Your task to perform on an android device: Is it going to rain today? Image 0: 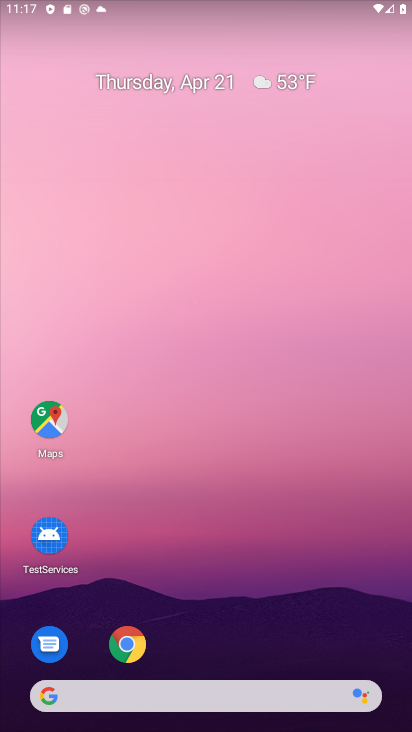
Step 0: drag from (256, 599) to (222, 151)
Your task to perform on an android device: Is it going to rain today? Image 1: 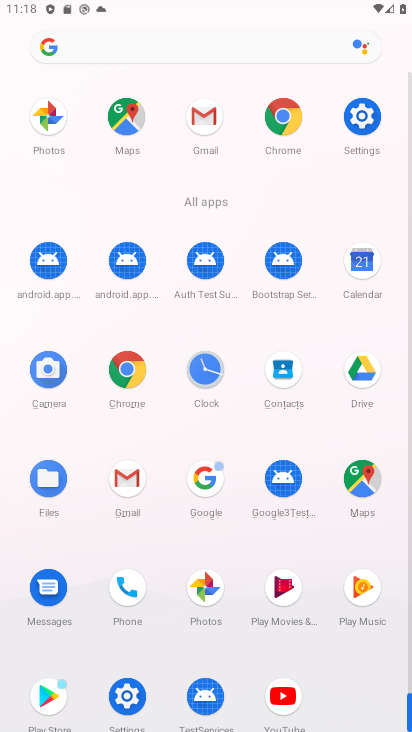
Step 1: click (132, 364)
Your task to perform on an android device: Is it going to rain today? Image 2: 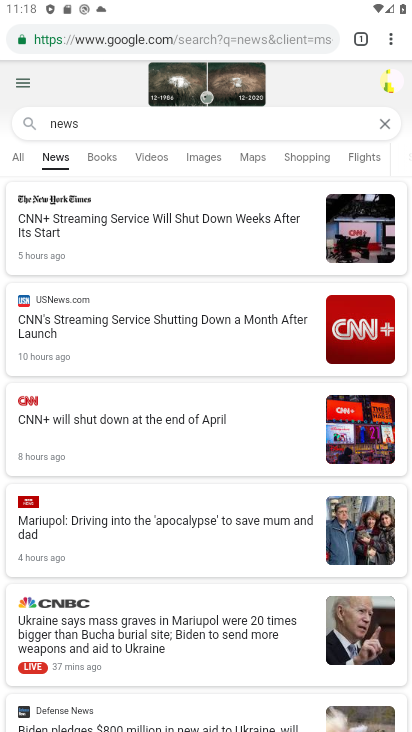
Step 2: drag from (188, 105) to (171, 412)
Your task to perform on an android device: Is it going to rain today? Image 3: 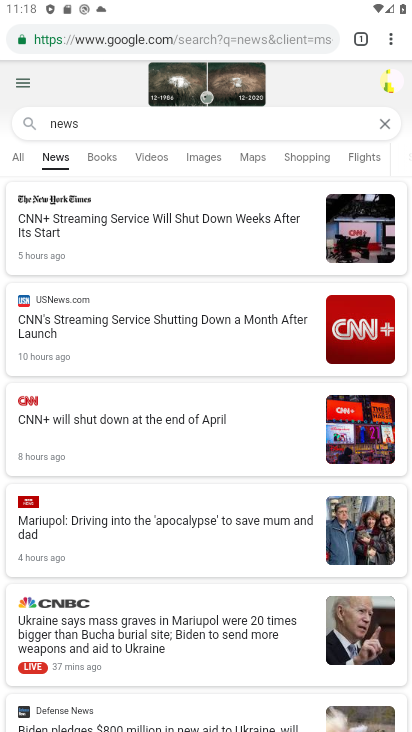
Step 3: click (155, 32)
Your task to perform on an android device: Is it going to rain today? Image 4: 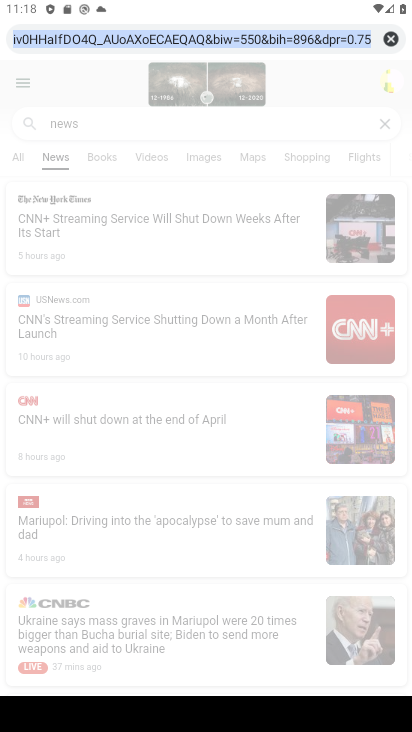
Step 4: type "weather"
Your task to perform on an android device: Is it going to rain today? Image 5: 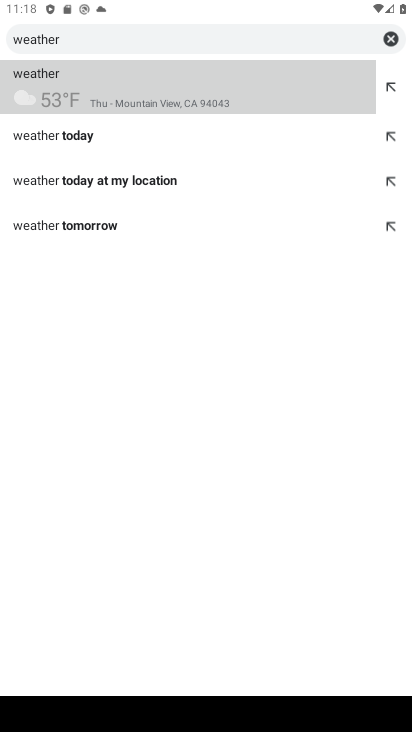
Step 5: click (43, 61)
Your task to perform on an android device: Is it going to rain today? Image 6: 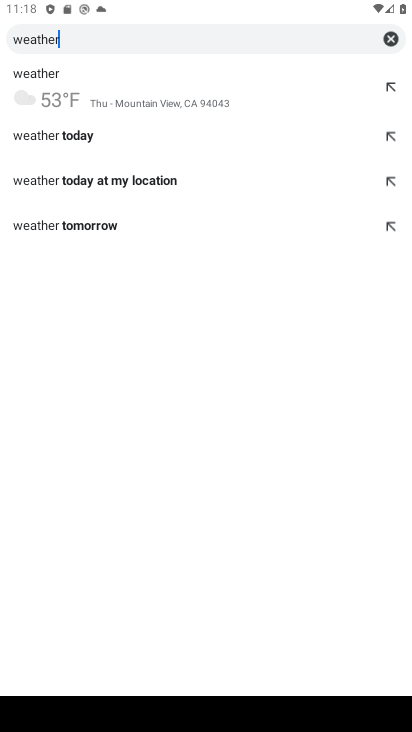
Step 6: click (37, 82)
Your task to perform on an android device: Is it going to rain today? Image 7: 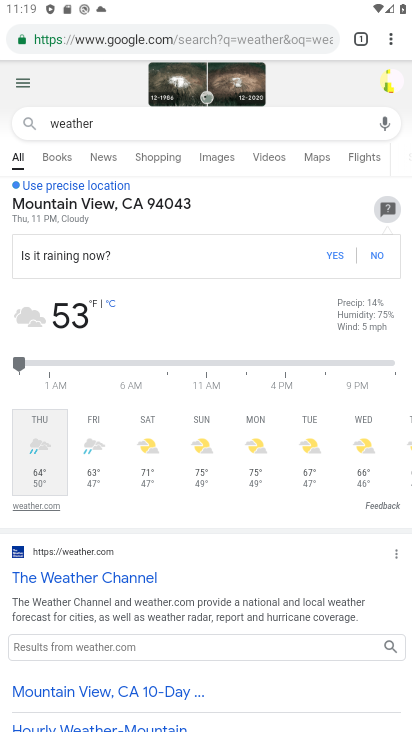
Step 7: task complete